Your task to perform on an android device: What's on my calendar tomorrow? Image 0: 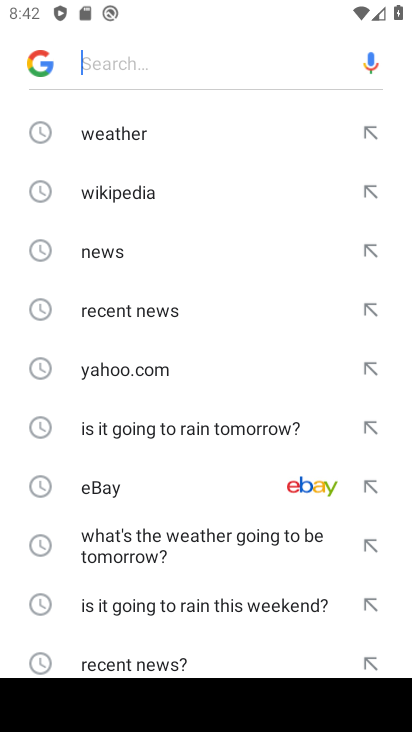
Step 0: press home button
Your task to perform on an android device: What's on my calendar tomorrow? Image 1: 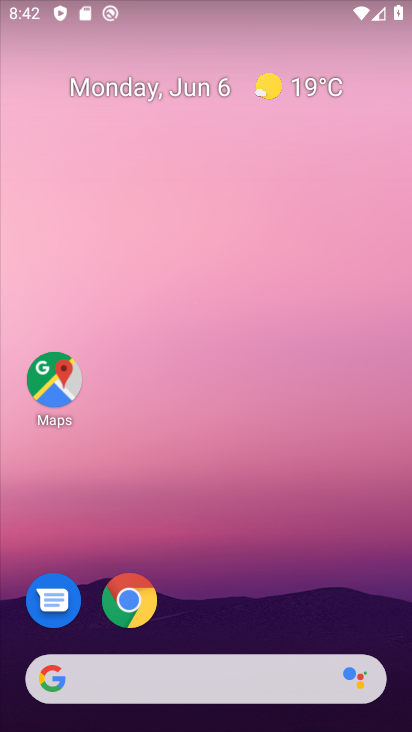
Step 1: click (154, 89)
Your task to perform on an android device: What's on my calendar tomorrow? Image 2: 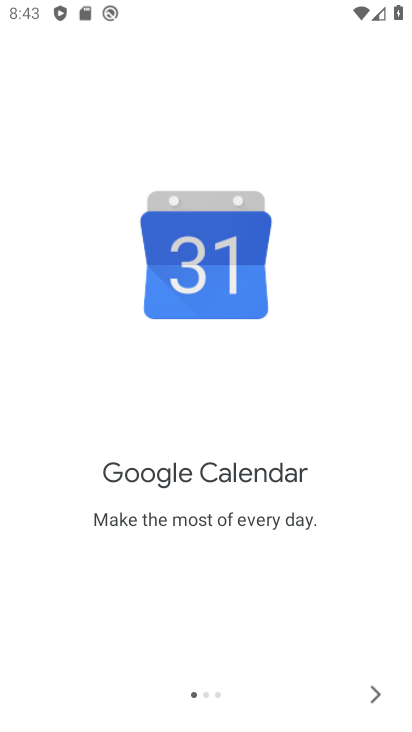
Step 2: click (377, 689)
Your task to perform on an android device: What's on my calendar tomorrow? Image 3: 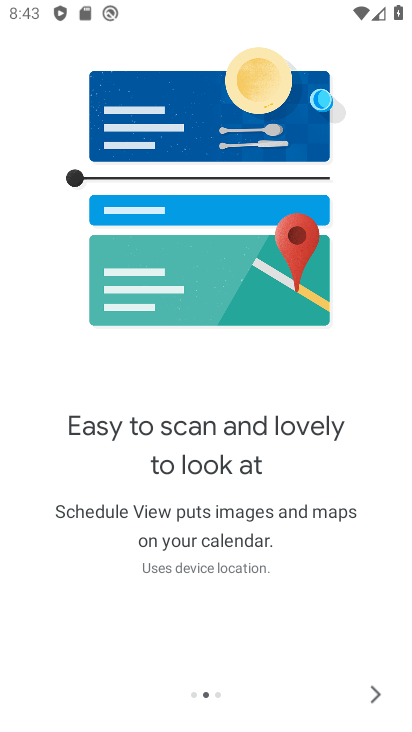
Step 3: click (380, 694)
Your task to perform on an android device: What's on my calendar tomorrow? Image 4: 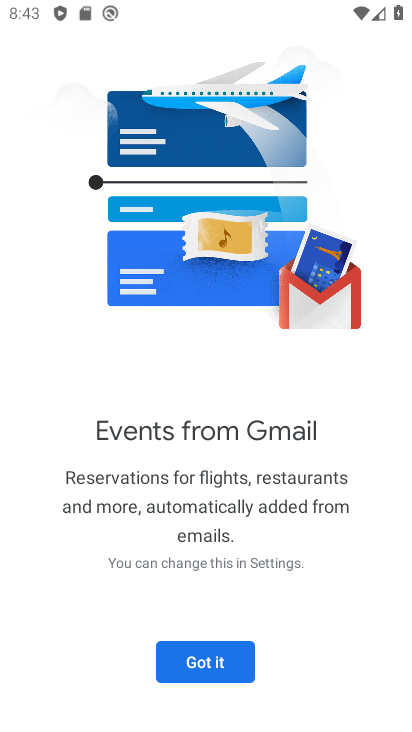
Step 4: click (202, 665)
Your task to perform on an android device: What's on my calendar tomorrow? Image 5: 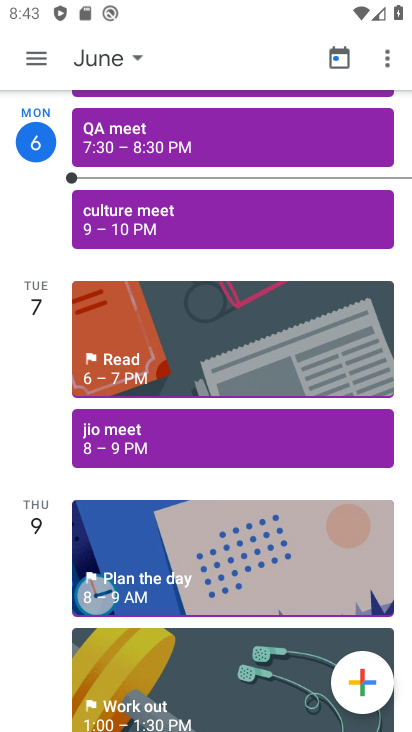
Step 5: task complete